Your task to perform on an android device: Clear the shopping cart on target. Add razer blackwidow to the cart on target, then select checkout. Image 0: 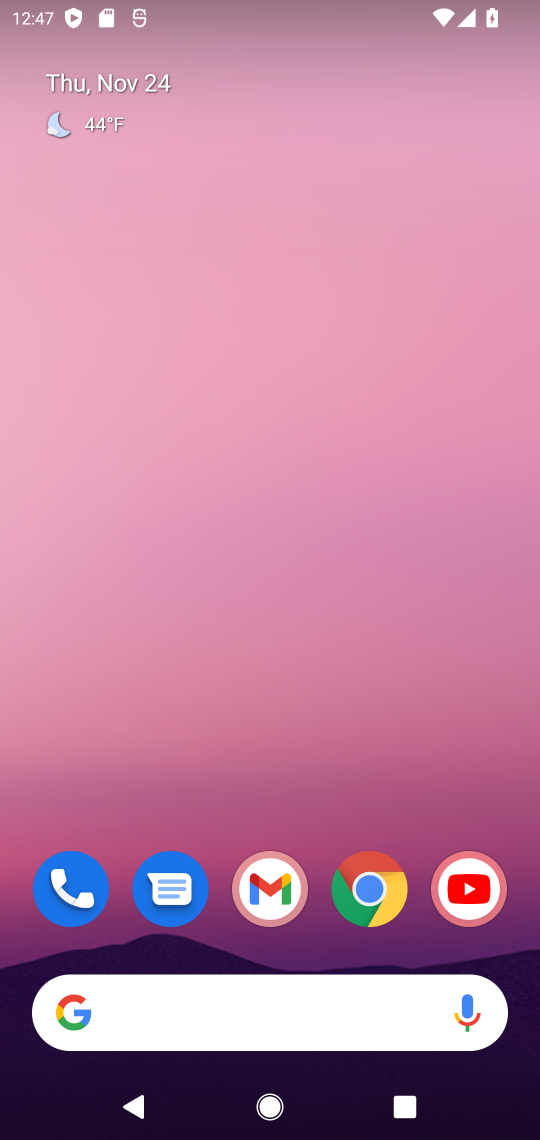
Step 0: click (374, 880)
Your task to perform on an android device: Clear the shopping cart on target. Add razer blackwidow to the cart on target, then select checkout. Image 1: 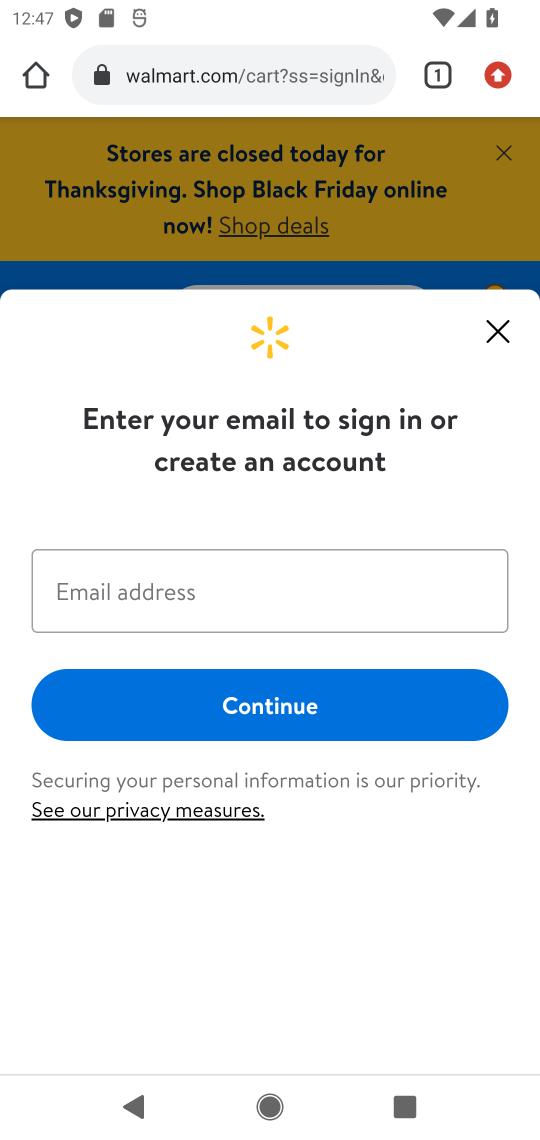
Step 1: click (180, 78)
Your task to perform on an android device: Clear the shopping cart on target. Add razer blackwidow to the cart on target, then select checkout. Image 2: 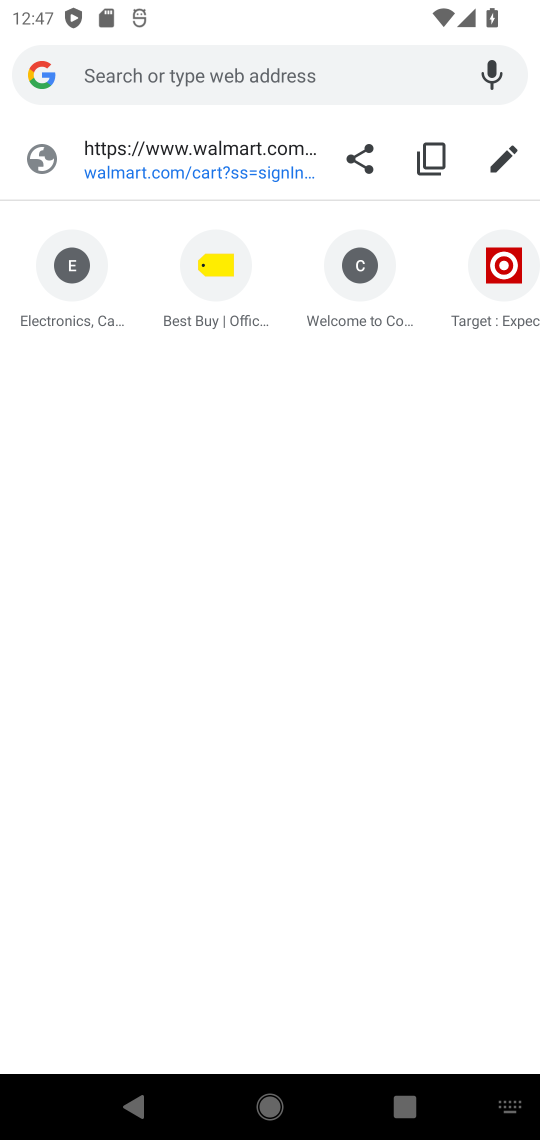
Step 2: click (499, 288)
Your task to perform on an android device: Clear the shopping cart on target. Add razer blackwidow to the cart on target, then select checkout. Image 3: 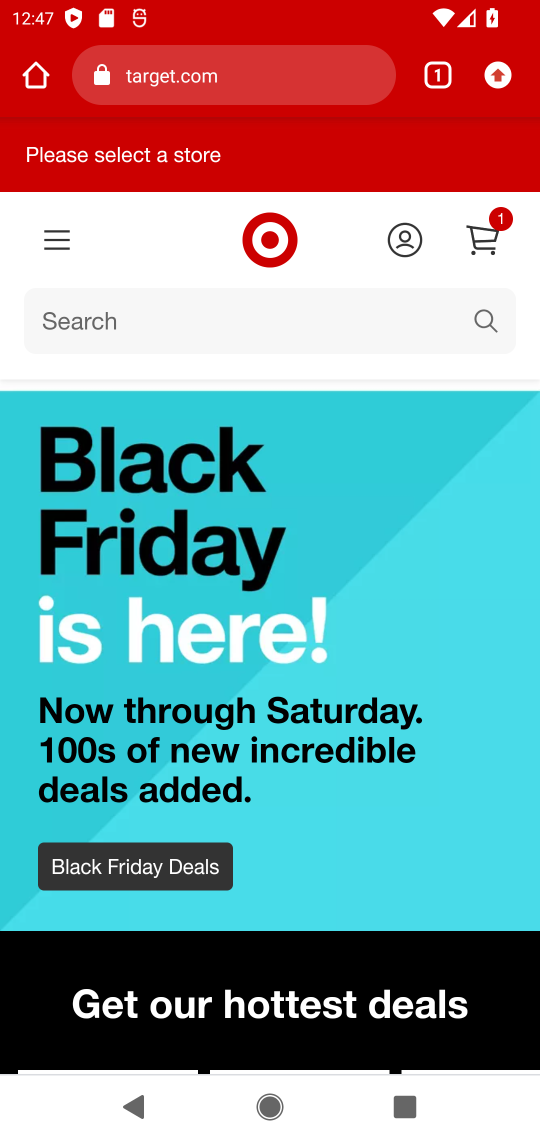
Step 3: click (481, 239)
Your task to perform on an android device: Clear the shopping cart on target. Add razer blackwidow to the cart on target, then select checkout. Image 4: 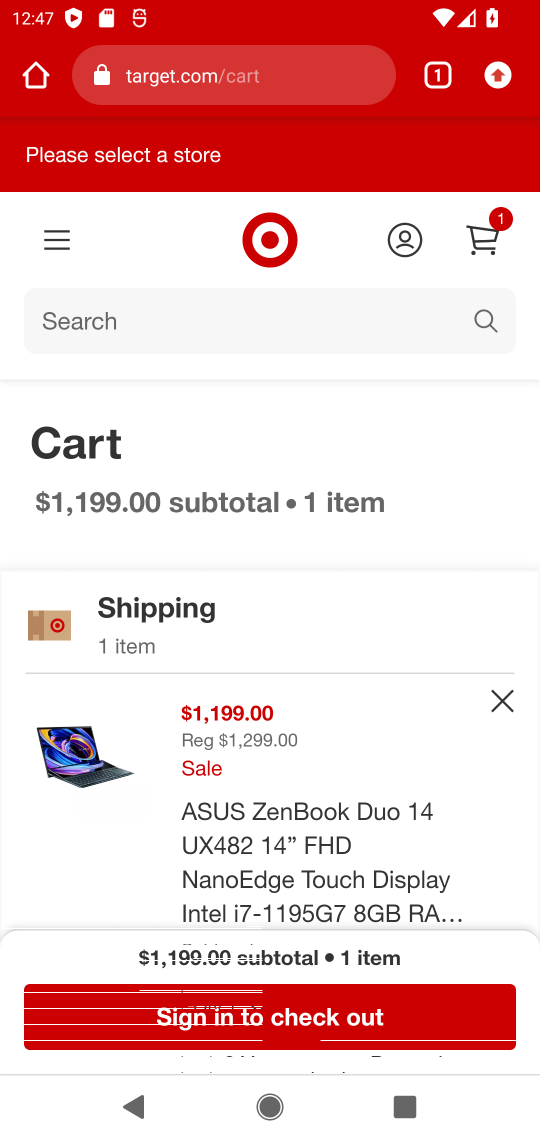
Step 4: drag from (264, 644) to (256, 453)
Your task to perform on an android device: Clear the shopping cart on target. Add razer blackwidow to the cart on target, then select checkout. Image 5: 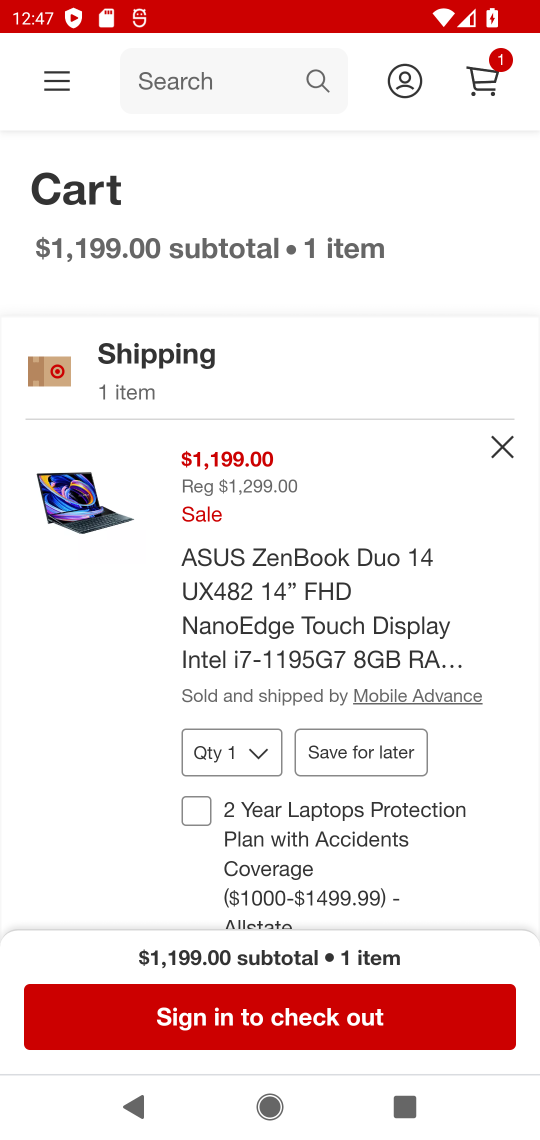
Step 5: click (498, 450)
Your task to perform on an android device: Clear the shopping cart on target. Add razer blackwidow to the cart on target, then select checkout. Image 6: 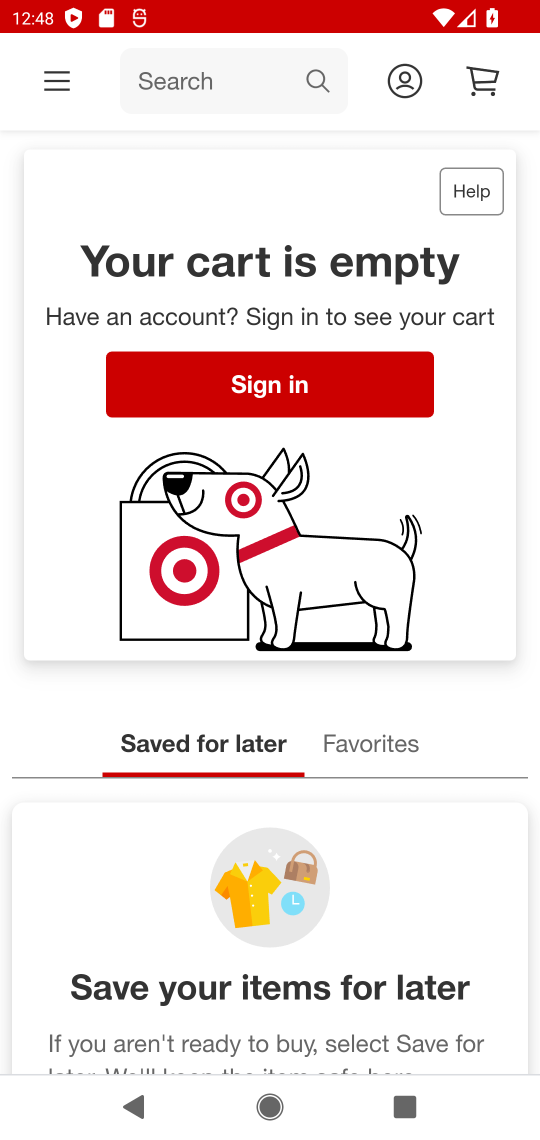
Step 6: click (321, 77)
Your task to perform on an android device: Clear the shopping cart on target. Add razer blackwidow to the cart on target, then select checkout. Image 7: 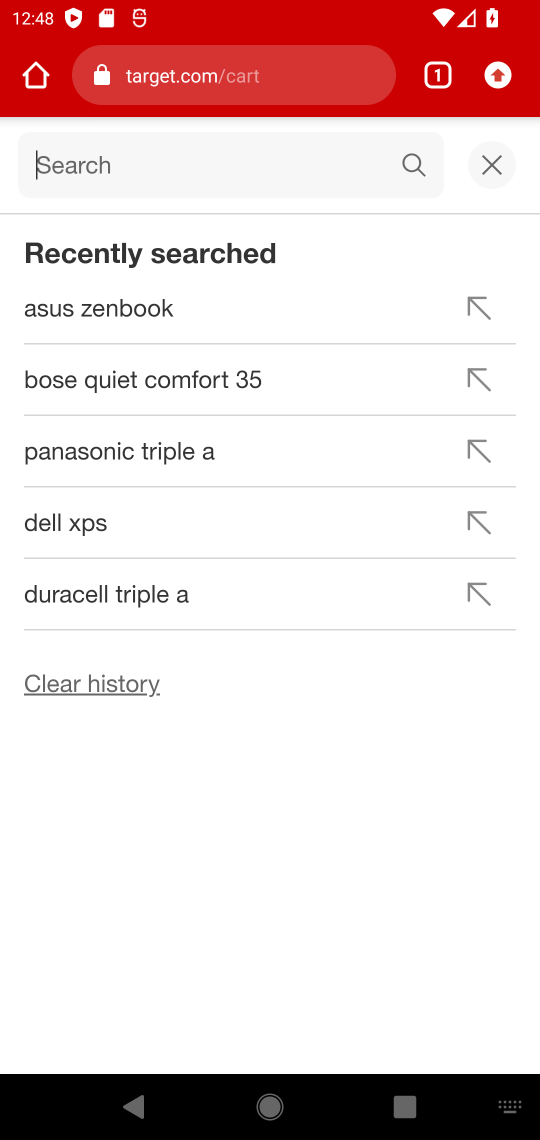
Step 7: type " razer blackwidow"
Your task to perform on an android device: Clear the shopping cart on target. Add razer blackwidow to the cart on target, then select checkout. Image 8: 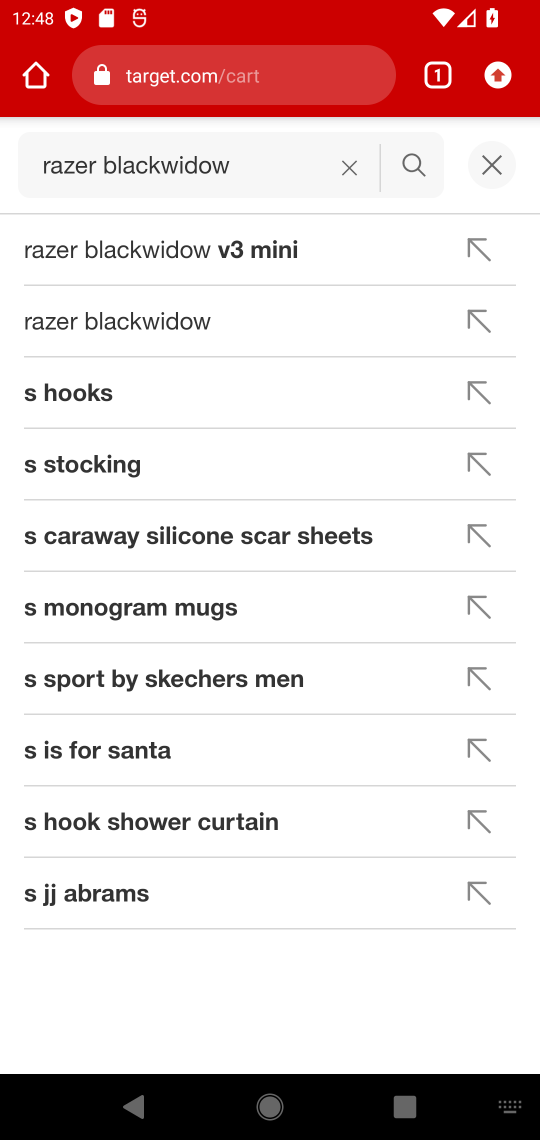
Step 8: click (180, 316)
Your task to perform on an android device: Clear the shopping cart on target. Add razer blackwidow to the cart on target, then select checkout. Image 9: 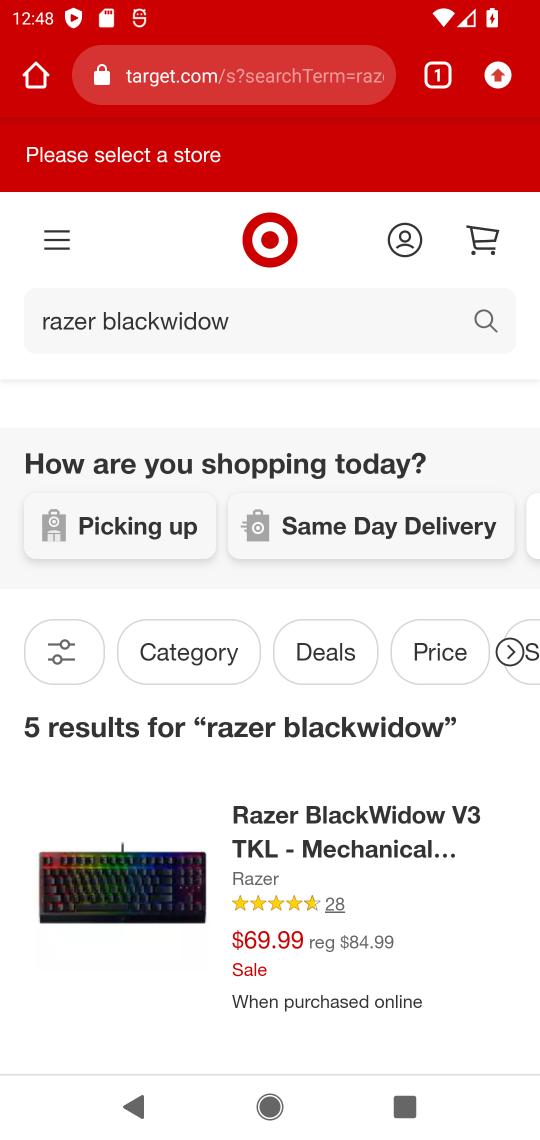
Step 9: drag from (237, 752) to (208, 318)
Your task to perform on an android device: Clear the shopping cart on target. Add razer blackwidow to the cart on target, then select checkout. Image 10: 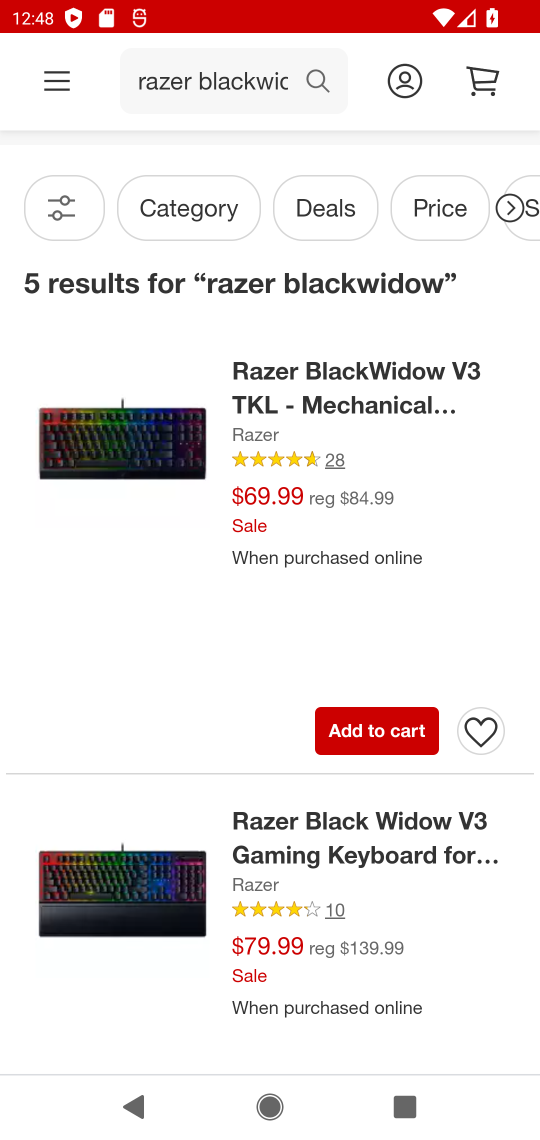
Step 10: click (379, 737)
Your task to perform on an android device: Clear the shopping cart on target. Add razer blackwidow to the cart on target, then select checkout. Image 11: 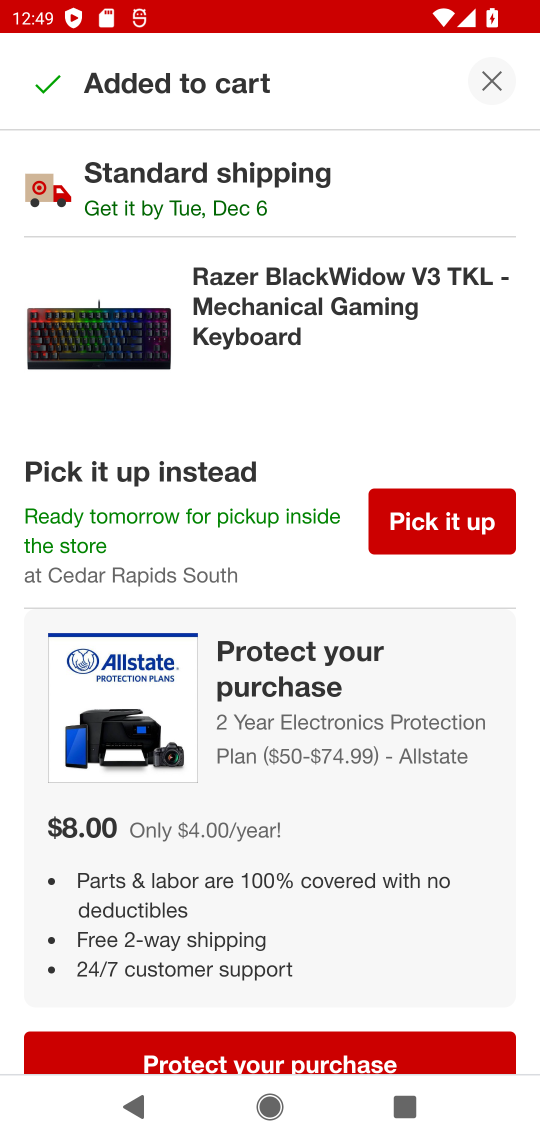
Step 11: drag from (268, 560) to (269, 351)
Your task to perform on an android device: Clear the shopping cart on target. Add razer blackwidow to the cart on target, then select checkout. Image 12: 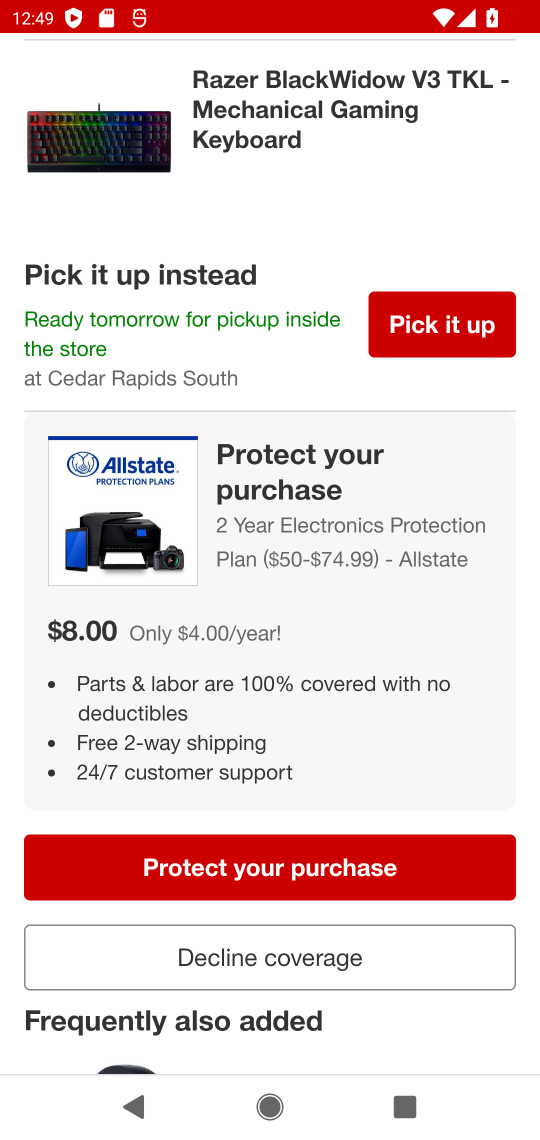
Step 12: drag from (458, 123) to (442, 365)
Your task to perform on an android device: Clear the shopping cart on target. Add razer blackwidow to the cart on target, then select checkout. Image 13: 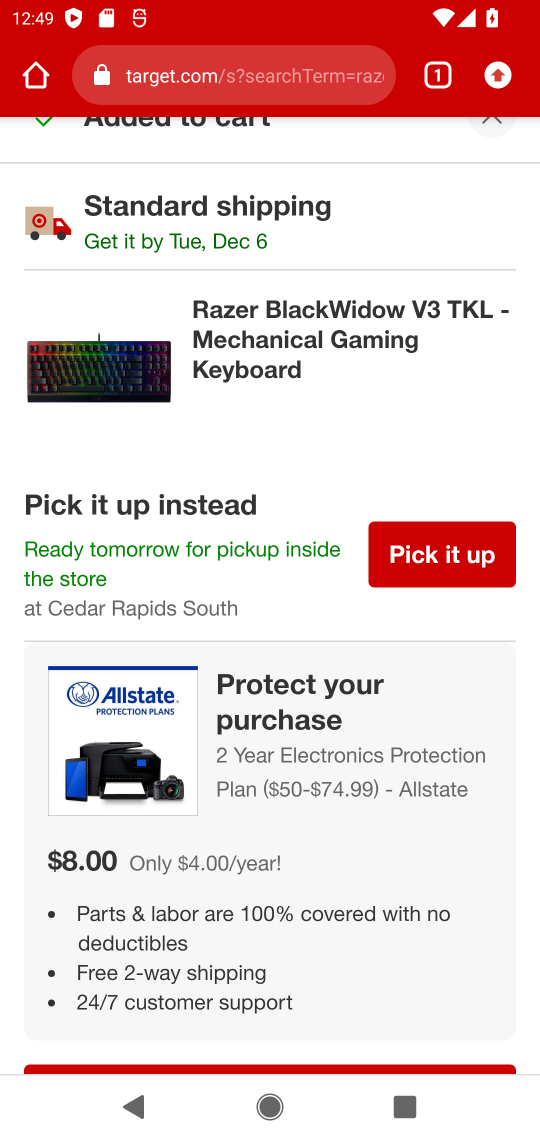
Step 13: drag from (442, 164) to (449, 251)
Your task to perform on an android device: Clear the shopping cart on target. Add razer blackwidow to the cart on target, then select checkout. Image 14: 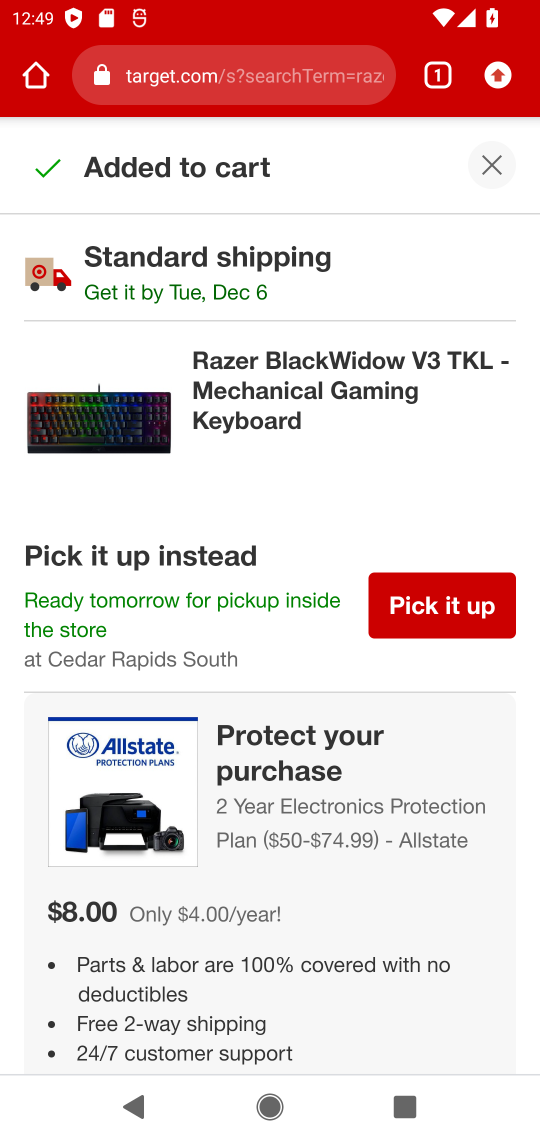
Step 14: click (503, 167)
Your task to perform on an android device: Clear the shopping cart on target. Add razer blackwidow to the cart on target, then select checkout. Image 15: 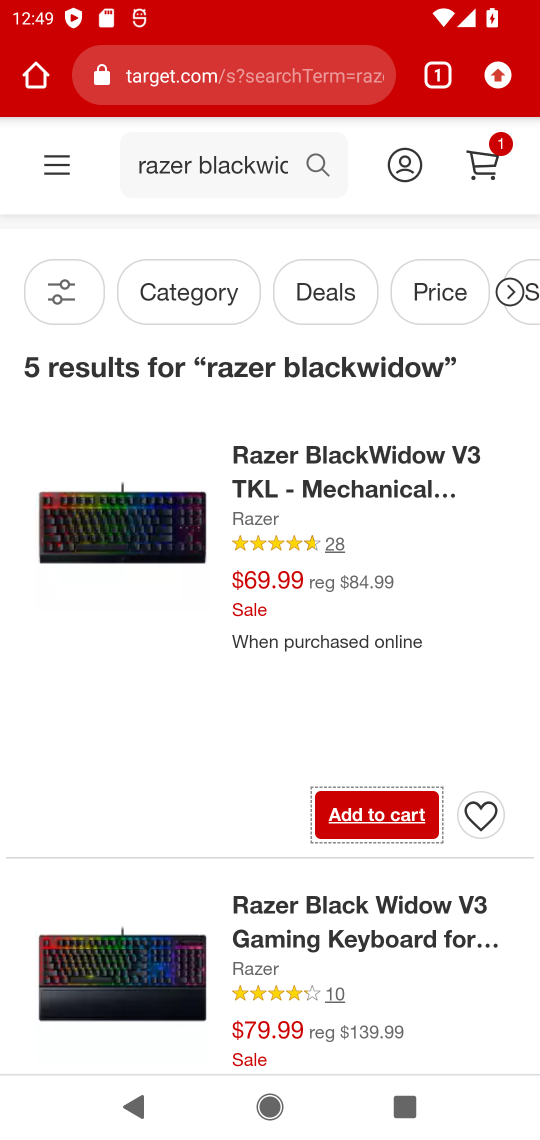
Step 15: click (496, 163)
Your task to perform on an android device: Clear the shopping cart on target. Add razer blackwidow to the cart on target, then select checkout. Image 16: 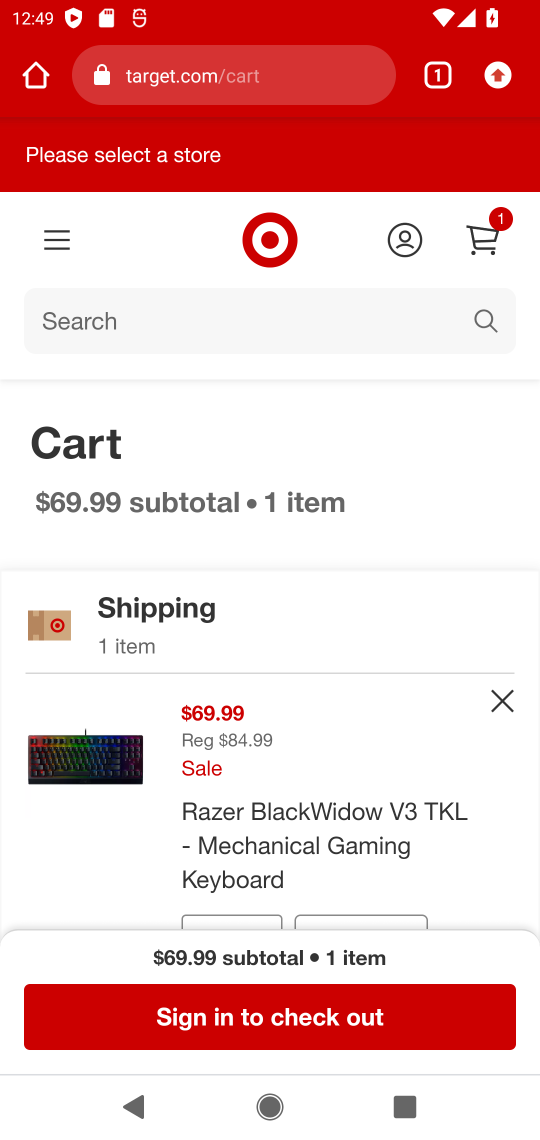
Step 16: click (266, 1008)
Your task to perform on an android device: Clear the shopping cart on target. Add razer blackwidow to the cart on target, then select checkout. Image 17: 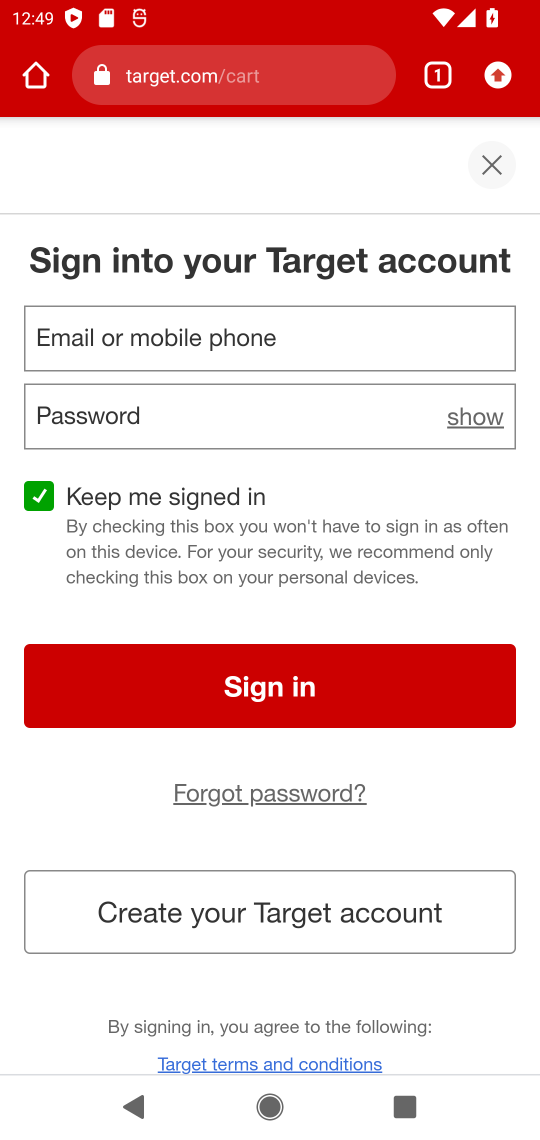
Step 17: task complete